Your task to perform on an android device: add a contact in the contacts app Image 0: 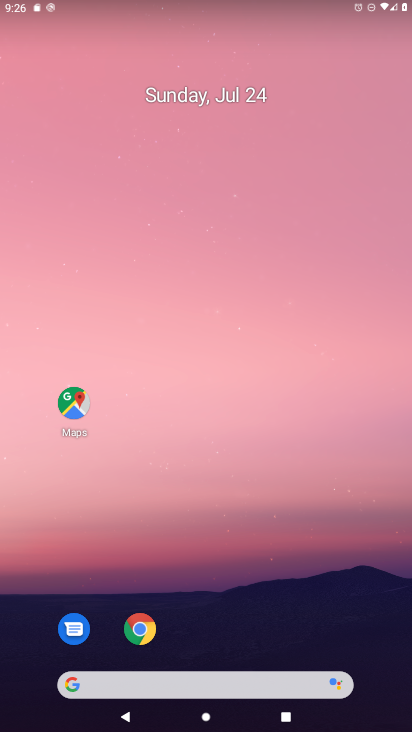
Step 0: drag from (354, 618) to (123, 11)
Your task to perform on an android device: add a contact in the contacts app Image 1: 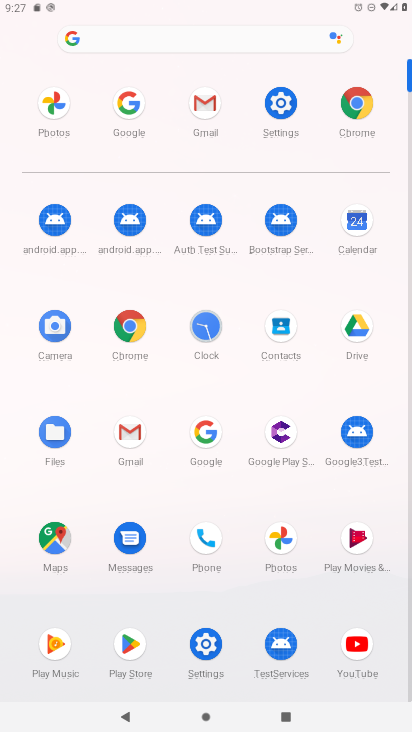
Step 1: click (261, 333)
Your task to perform on an android device: add a contact in the contacts app Image 2: 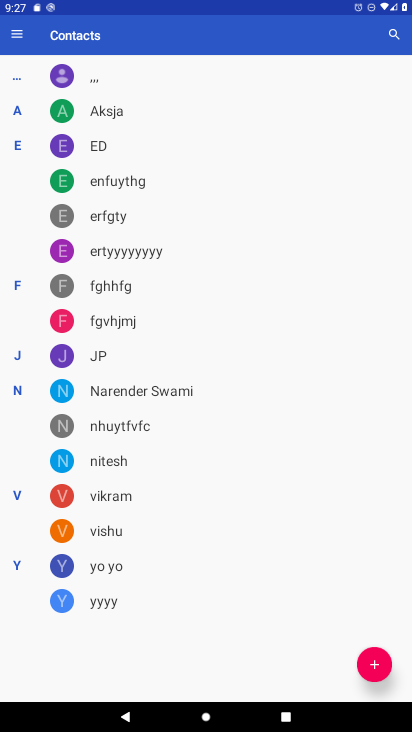
Step 2: click (369, 653)
Your task to perform on an android device: add a contact in the contacts app Image 3: 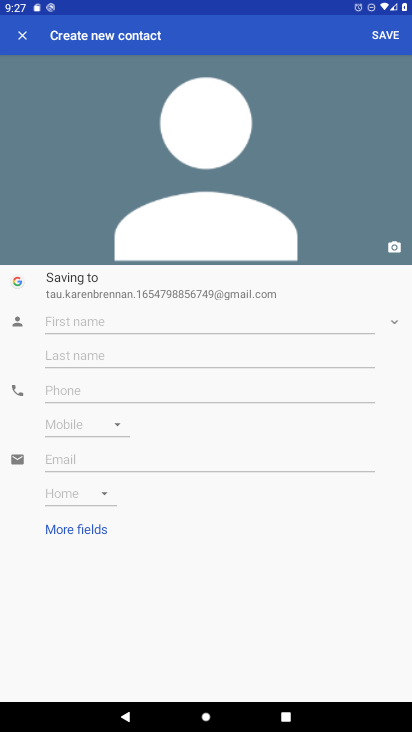
Step 3: click (54, 319)
Your task to perform on an android device: add a contact in the contacts app Image 4: 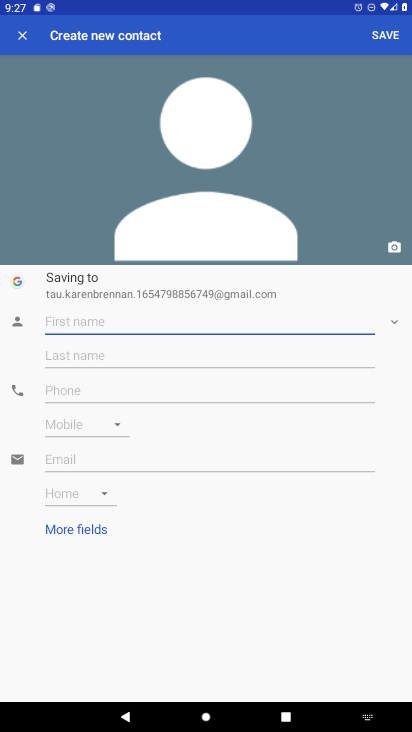
Step 4: type "komal"
Your task to perform on an android device: add a contact in the contacts app Image 5: 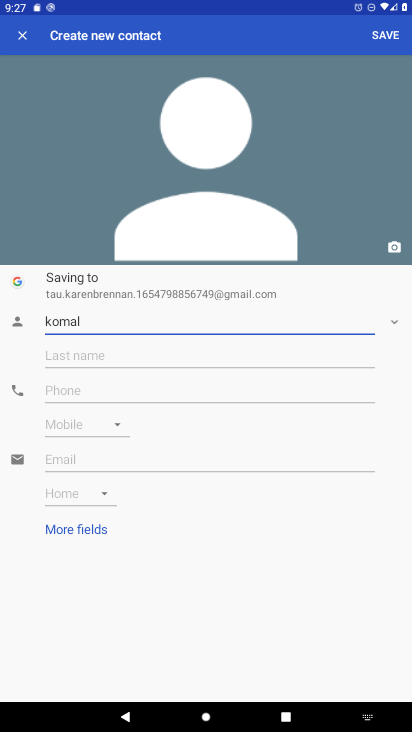
Step 5: click (387, 32)
Your task to perform on an android device: add a contact in the contacts app Image 6: 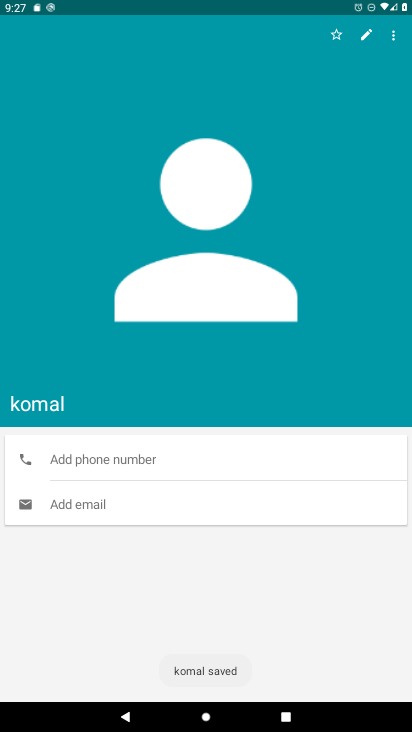
Step 6: task complete